Your task to perform on an android device: When is my next meeting? Image 0: 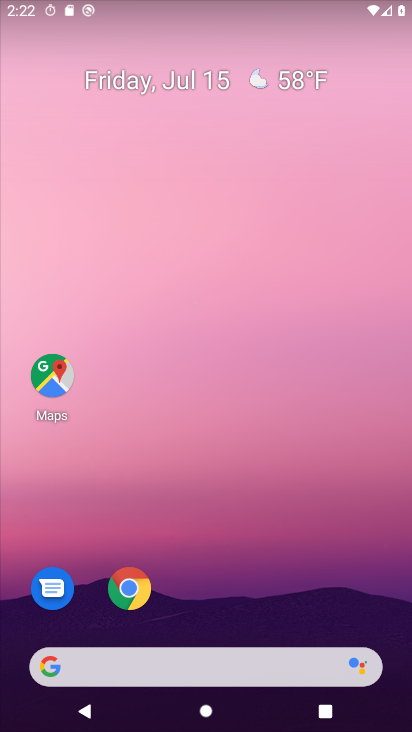
Step 0: drag from (272, 603) to (178, 1)
Your task to perform on an android device: When is my next meeting? Image 1: 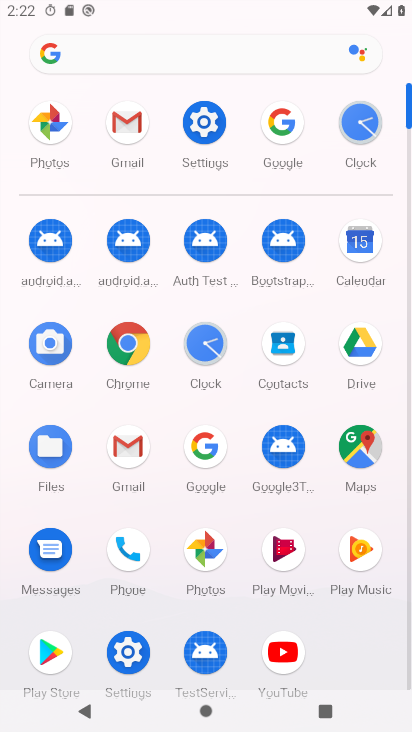
Step 1: click (354, 246)
Your task to perform on an android device: When is my next meeting? Image 2: 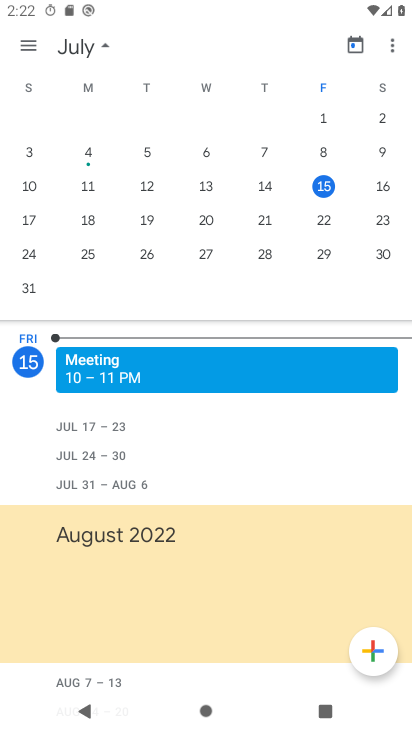
Step 2: click (322, 187)
Your task to perform on an android device: When is my next meeting? Image 3: 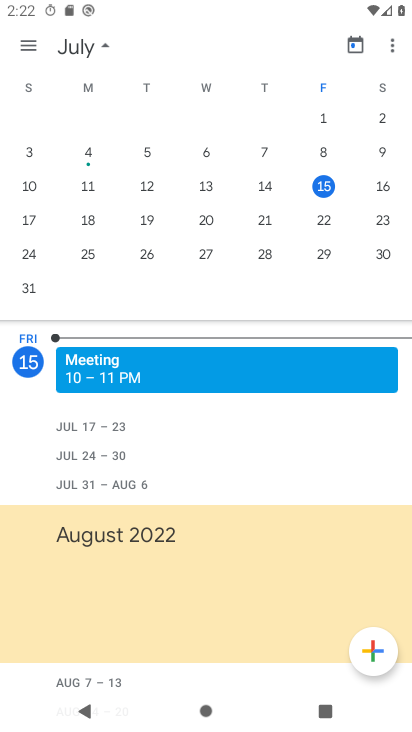
Step 3: task complete